Your task to perform on an android device: toggle priority inbox in the gmail app Image 0: 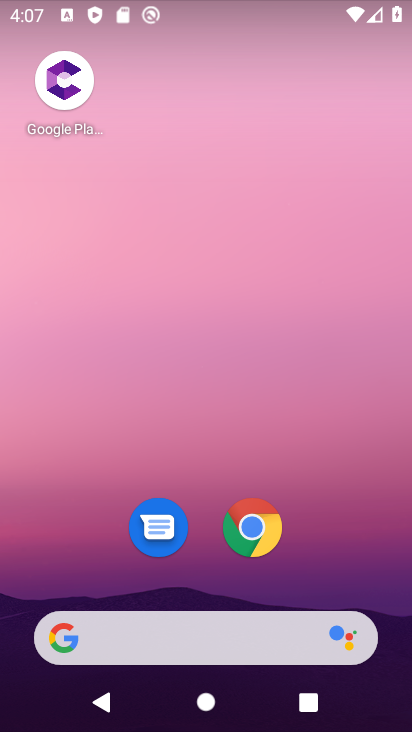
Step 0: drag from (350, 534) to (200, 1)
Your task to perform on an android device: toggle priority inbox in the gmail app Image 1: 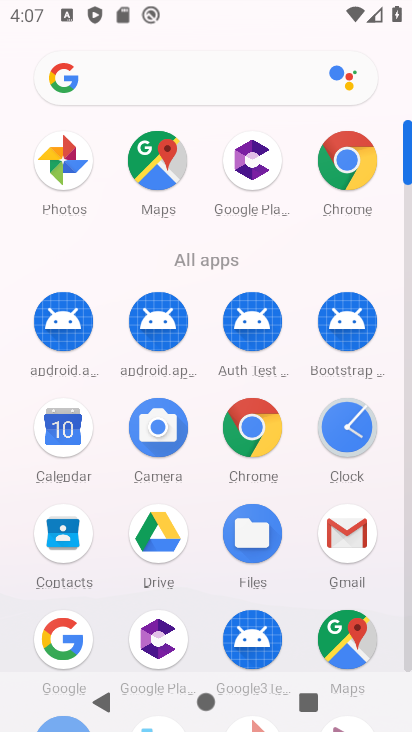
Step 1: click (335, 527)
Your task to perform on an android device: toggle priority inbox in the gmail app Image 2: 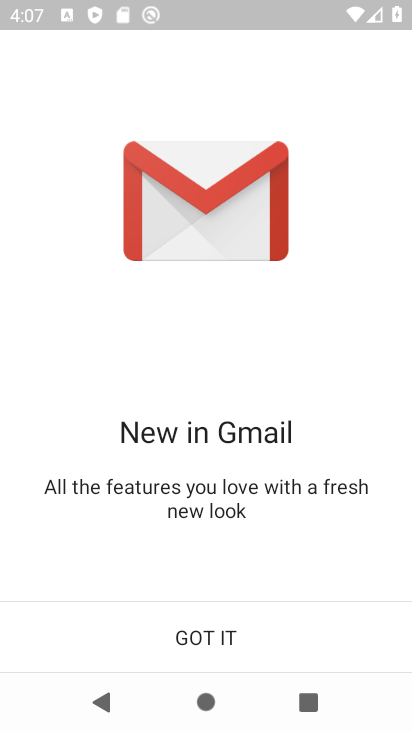
Step 2: click (235, 630)
Your task to perform on an android device: toggle priority inbox in the gmail app Image 3: 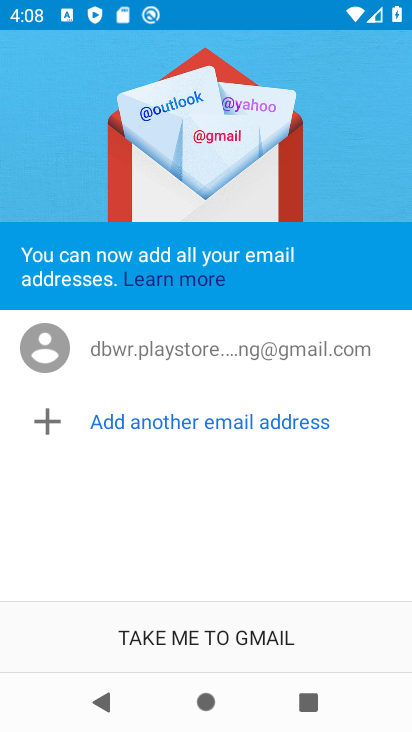
Step 3: click (235, 626)
Your task to perform on an android device: toggle priority inbox in the gmail app Image 4: 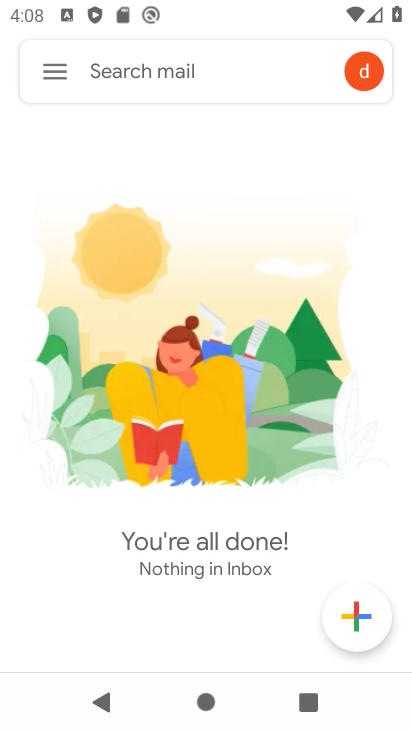
Step 4: click (51, 63)
Your task to perform on an android device: toggle priority inbox in the gmail app Image 5: 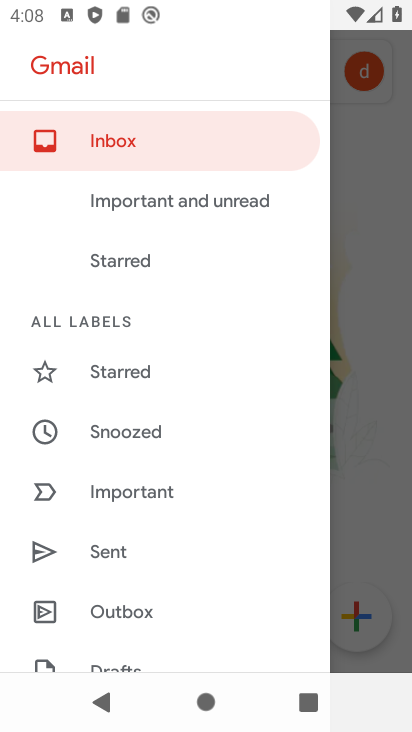
Step 5: drag from (176, 533) to (195, 163)
Your task to perform on an android device: toggle priority inbox in the gmail app Image 6: 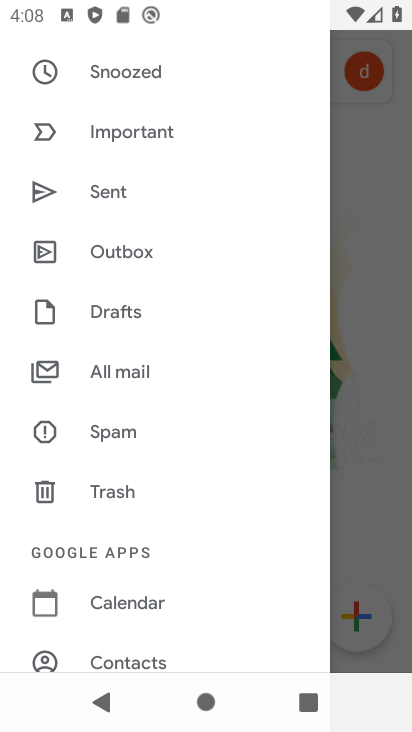
Step 6: drag from (189, 506) to (204, 183)
Your task to perform on an android device: toggle priority inbox in the gmail app Image 7: 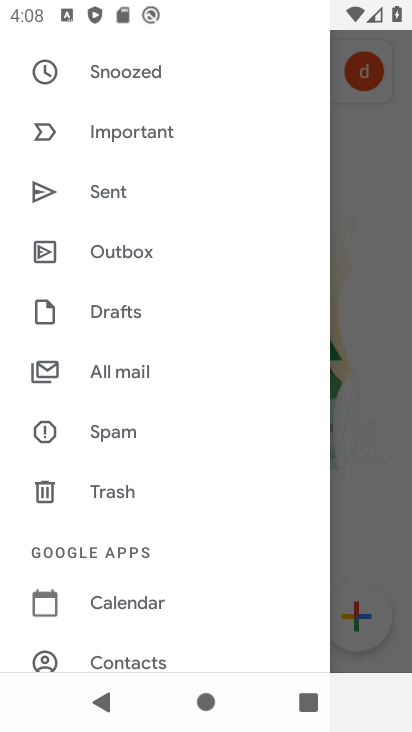
Step 7: drag from (228, 636) to (245, 326)
Your task to perform on an android device: toggle priority inbox in the gmail app Image 8: 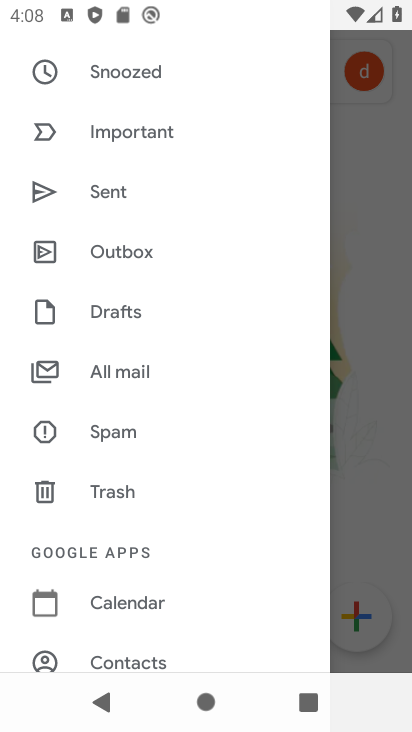
Step 8: drag from (134, 443) to (184, 184)
Your task to perform on an android device: toggle priority inbox in the gmail app Image 9: 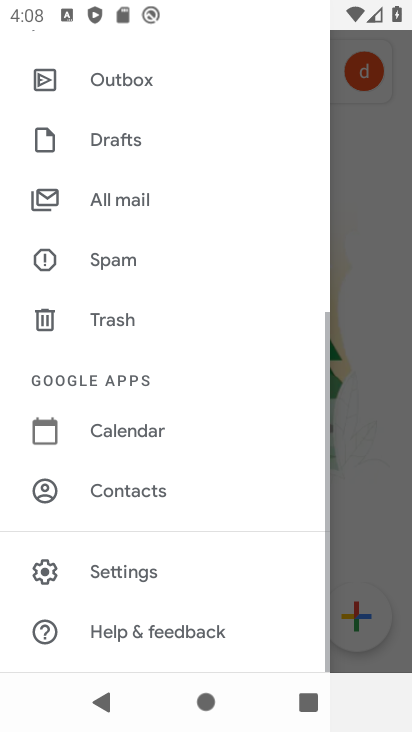
Step 9: click (135, 564)
Your task to perform on an android device: toggle priority inbox in the gmail app Image 10: 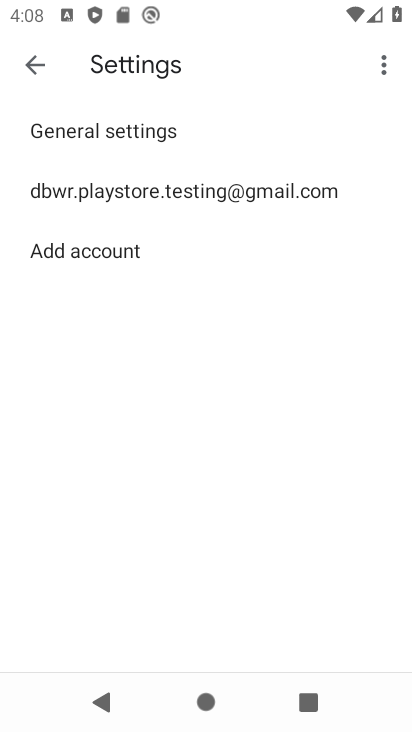
Step 10: click (230, 179)
Your task to perform on an android device: toggle priority inbox in the gmail app Image 11: 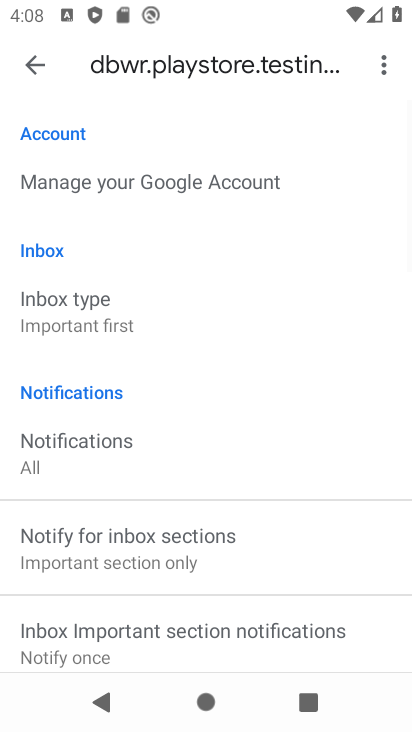
Step 11: click (75, 300)
Your task to perform on an android device: toggle priority inbox in the gmail app Image 12: 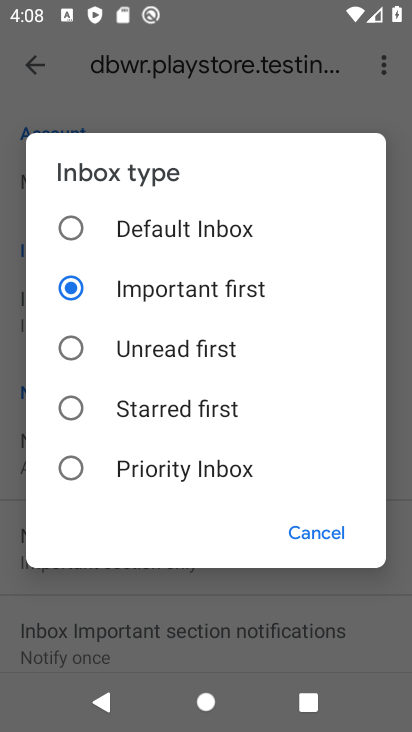
Step 12: click (69, 467)
Your task to perform on an android device: toggle priority inbox in the gmail app Image 13: 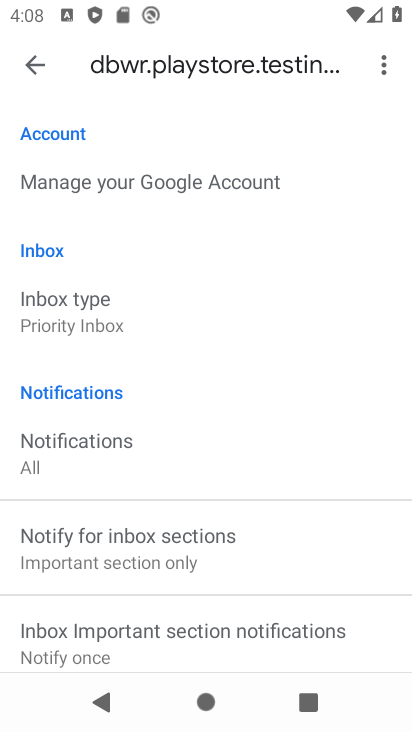
Step 13: task complete